Your task to perform on an android device: Open Wikipedia Image 0: 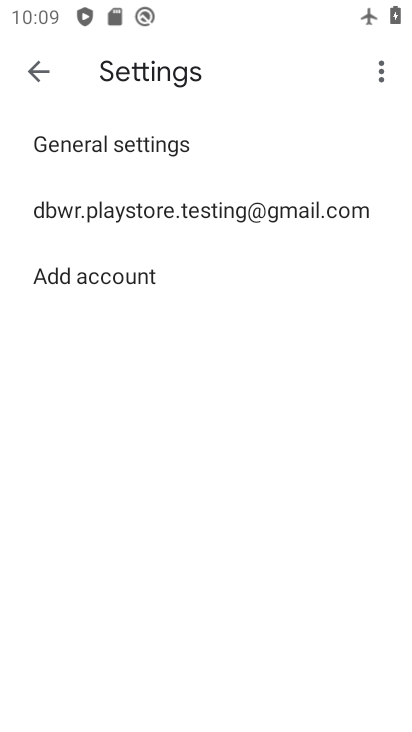
Step 0: press home button
Your task to perform on an android device: Open Wikipedia Image 1: 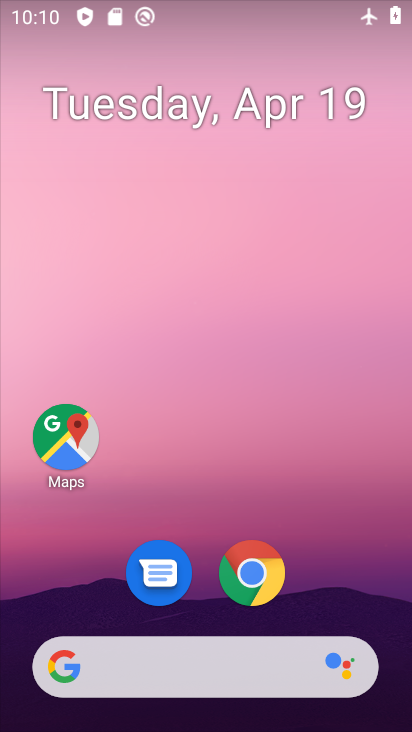
Step 1: drag from (368, 508) to (356, 106)
Your task to perform on an android device: Open Wikipedia Image 2: 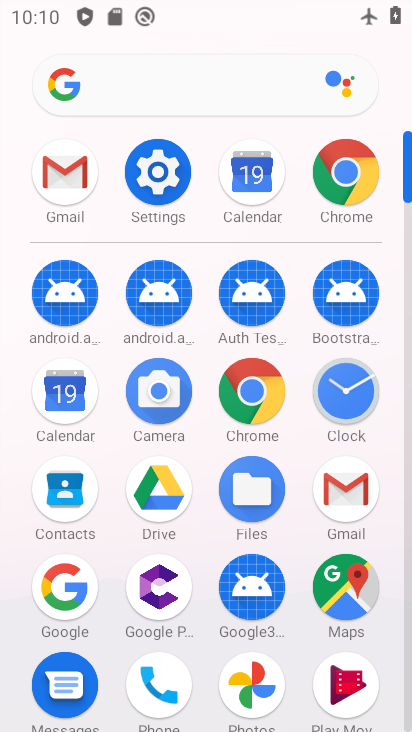
Step 2: click (363, 168)
Your task to perform on an android device: Open Wikipedia Image 3: 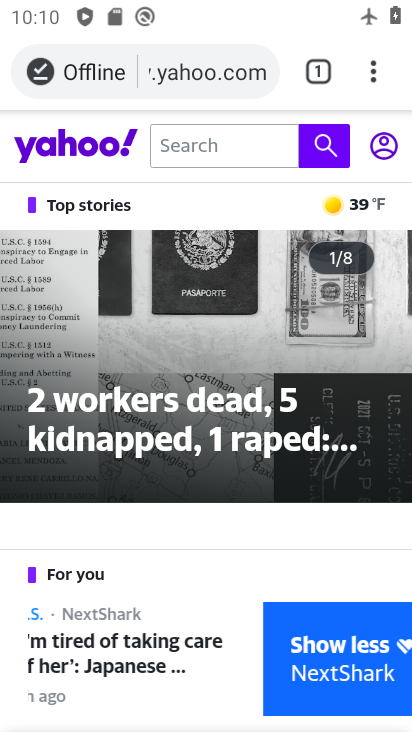
Step 3: press back button
Your task to perform on an android device: Open Wikipedia Image 4: 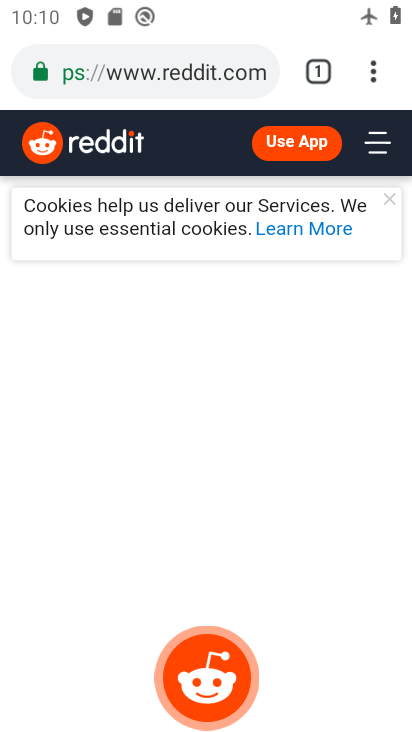
Step 4: press back button
Your task to perform on an android device: Open Wikipedia Image 5: 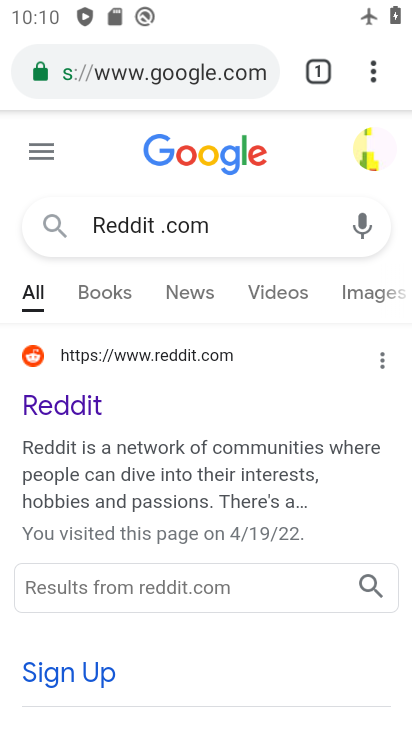
Step 5: press back button
Your task to perform on an android device: Open Wikipedia Image 6: 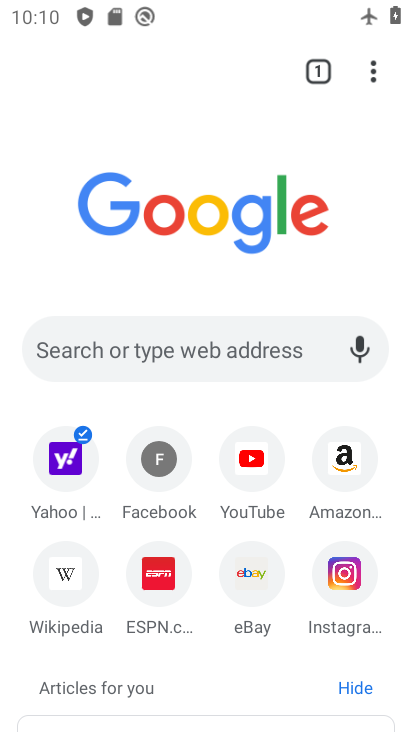
Step 6: click (56, 573)
Your task to perform on an android device: Open Wikipedia Image 7: 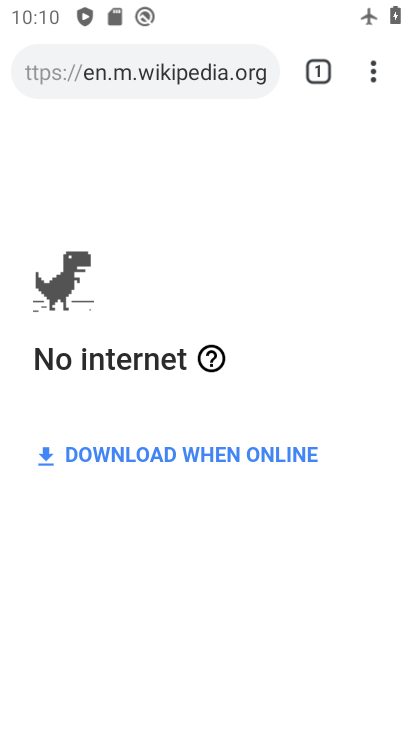
Step 7: task complete